Your task to perform on an android device: Go to privacy settings Image 0: 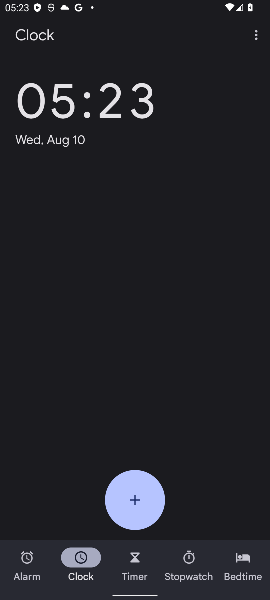
Step 0: press home button
Your task to perform on an android device: Go to privacy settings Image 1: 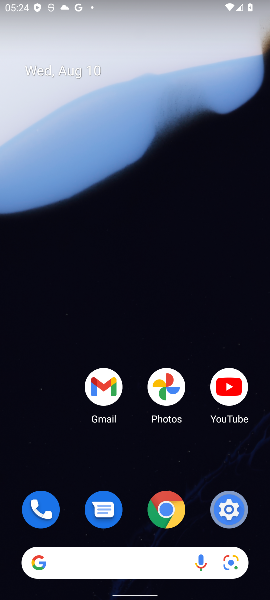
Step 1: drag from (197, 518) to (261, 63)
Your task to perform on an android device: Go to privacy settings Image 2: 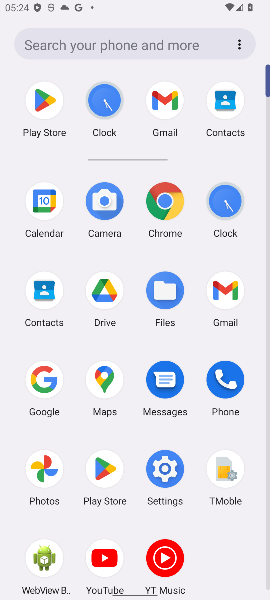
Step 2: click (165, 475)
Your task to perform on an android device: Go to privacy settings Image 3: 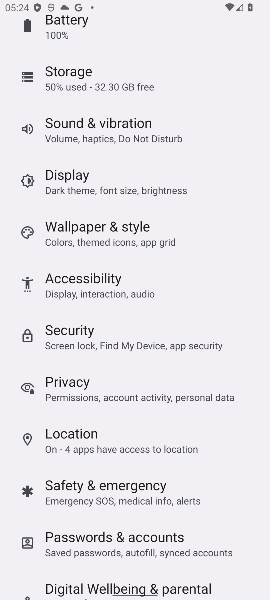
Step 3: click (93, 386)
Your task to perform on an android device: Go to privacy settings Image 4: 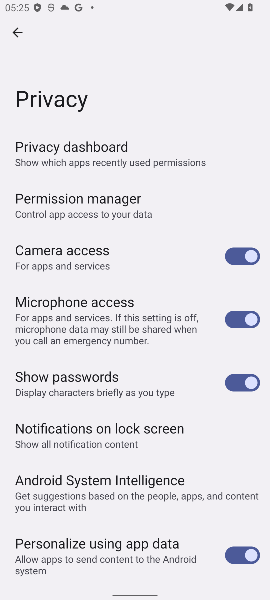
Step 4: task complete